Your task to perform on an android device: Open Chrome and go to the settings page Image 0: 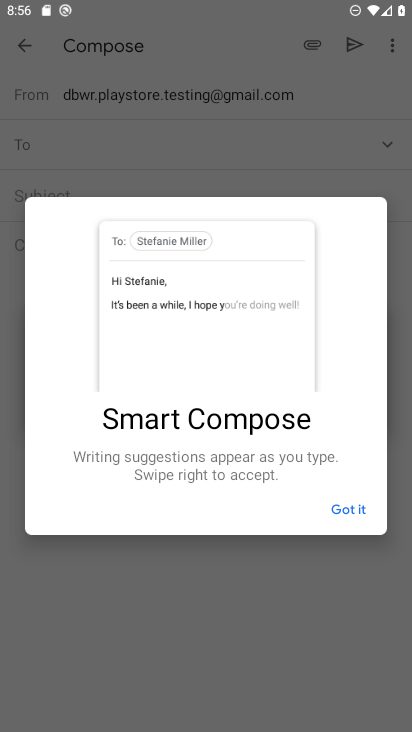
Step 0: press home button
Your task to perform on an android device: Open Chrome and go to the settings page Image 1: 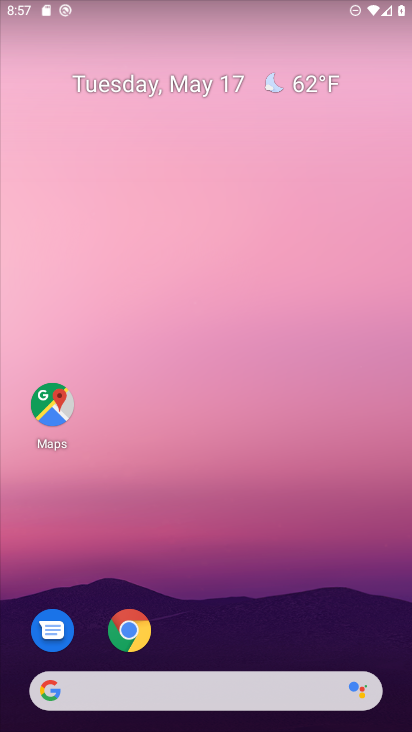
Step 1: click (124, 636)
Your task to perform on an android device: Open Chrome and go to the settings page Image 2: 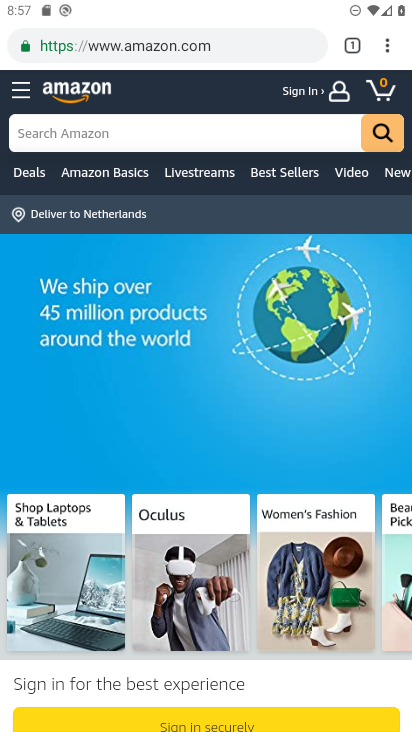
Step 2: click (389, 46)
Your task to perform on an android device: Open Chrome and go to the settings page Image 3: 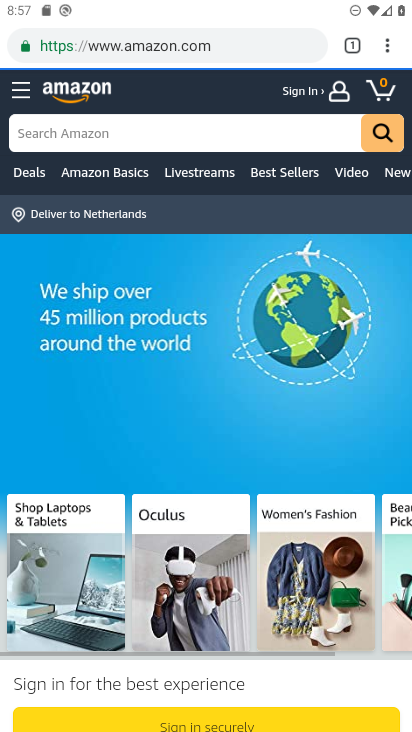
Step 3: click (389, 46)
Your task to perform on an android device: Open Chrome and go to the settings page Image 4: 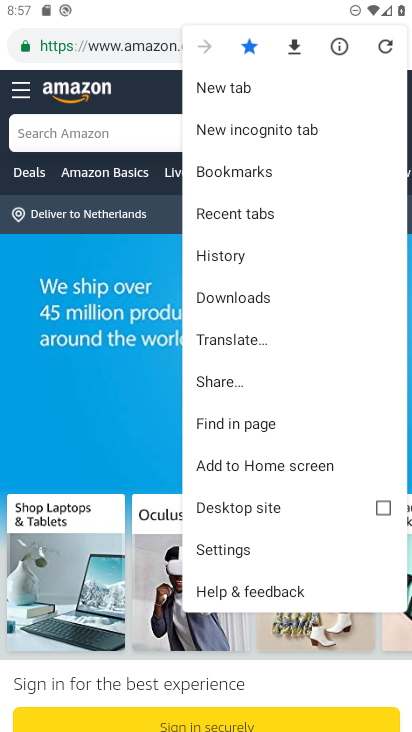
Step 4: click (241, 557)
Your task to perform on an android device: Open Chrome and go to the settings page Image 5: 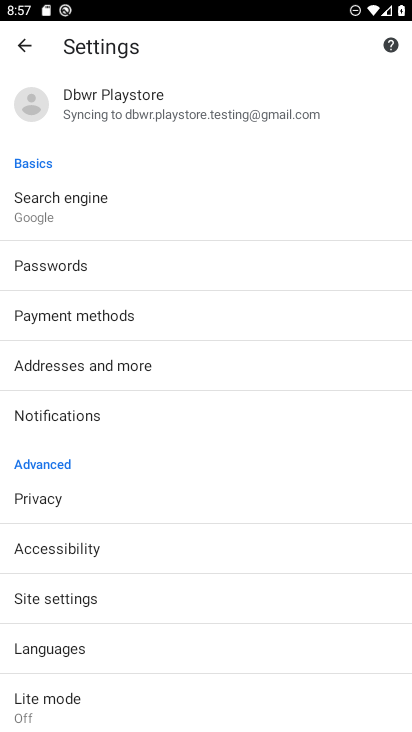
Step 5: task complete